Your task to perform on an android device: change your default location settings in chrome Image 0: 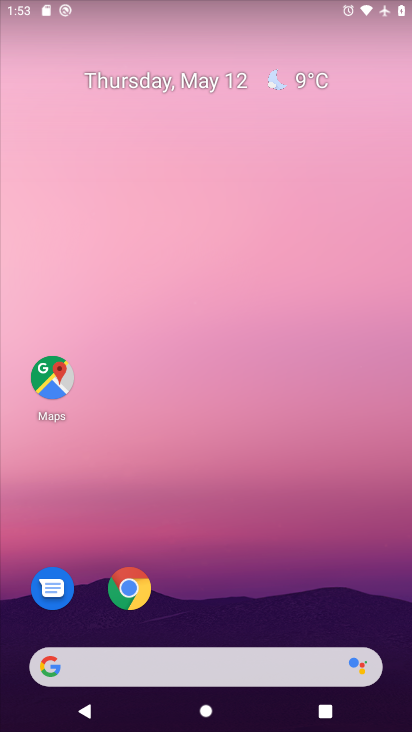
Step 0: drag from (288, 557) to (388, 8)
Your task to perform on an android device: change your default location settings in chrome Image 1: 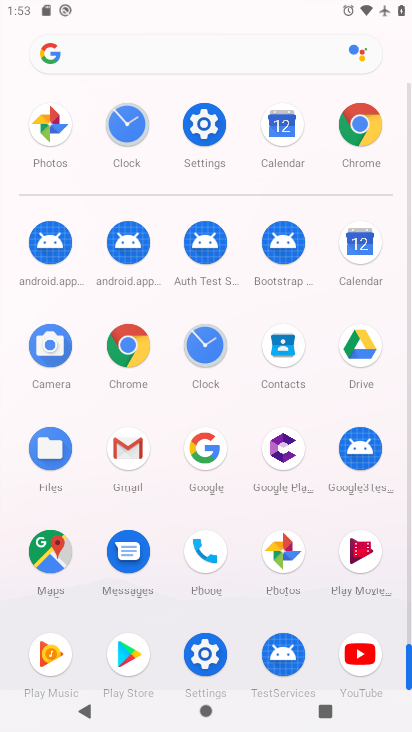
Step 1: click (361, 133)
Your task to perform on an android device: change your default location settings in chrome Image 2: 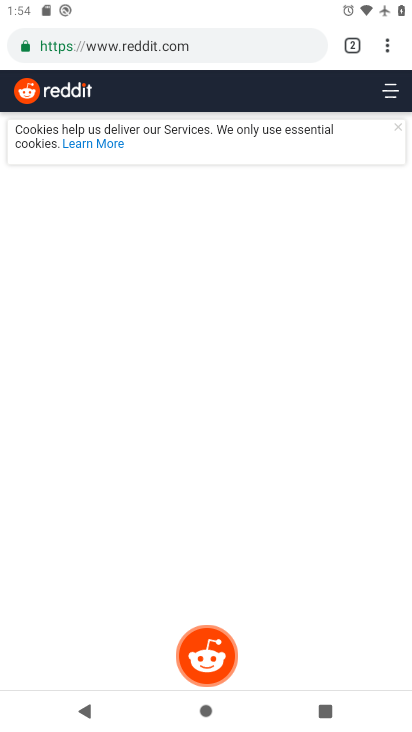
Step 2: drag from (387, 46) to (239, 543)
Your task to perform on an android device: change your default location settings in chrome Image 3: 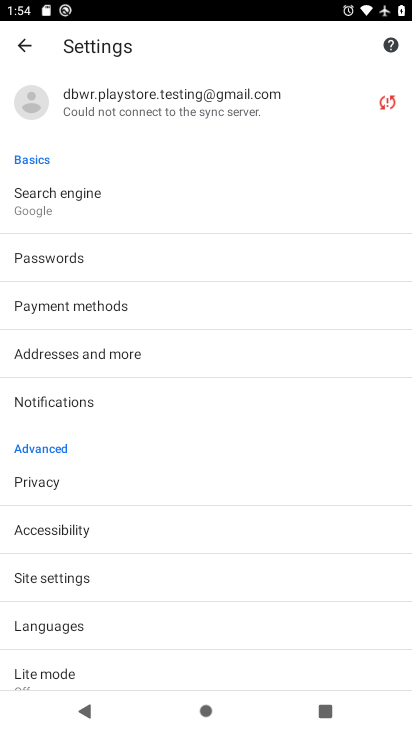
Step 3: drag from (134, 572) to (178, 308)
Your task to perform on an android device: change your default location settings in chrome Image 4: 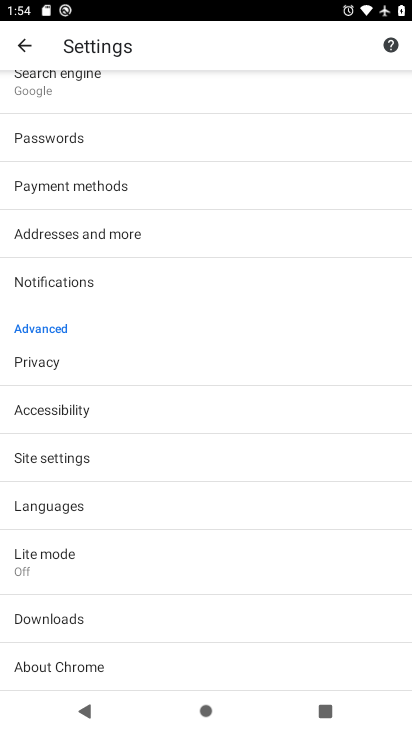
Step 4: click (80, 455)
Your task to perform on an android device: change your default location settings in chrome Image 5: 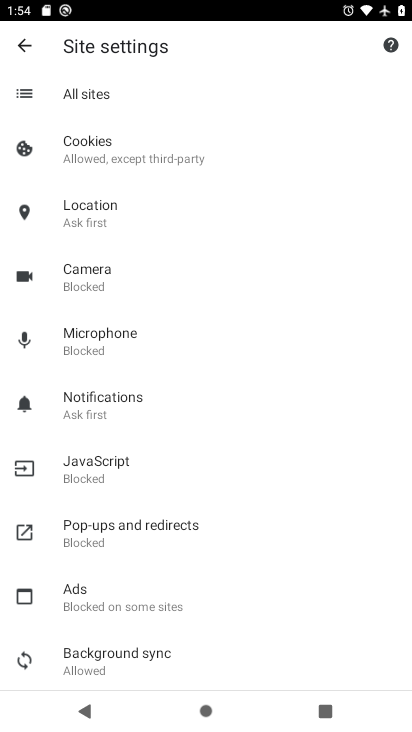
Step 5: drag from (180, 564) to (252, 297)
Your task to perform on an android device: change your default location settings in chrome Image 6: 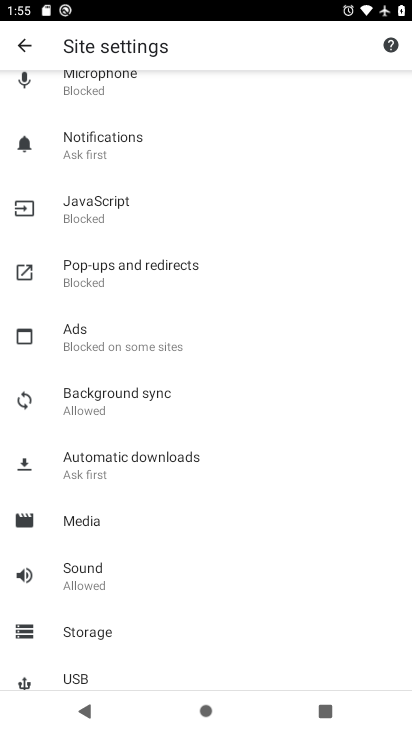
Step 6: drag from (158, 268) to (50, 611)
Your task to perform on an android device: change your default location settings in chrome Image 7: 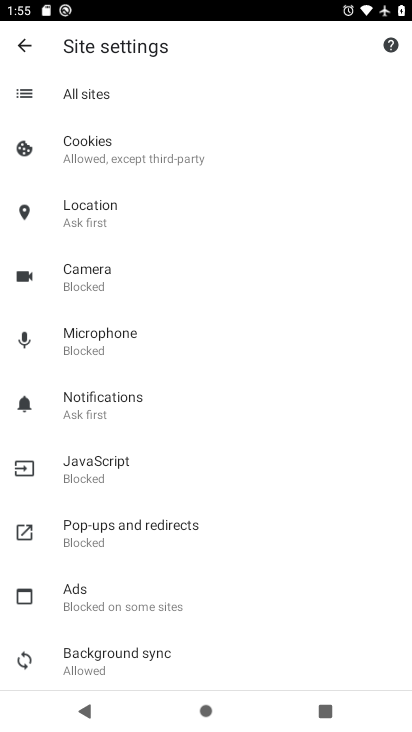
Step 7: click (99, 218)
Your task to perform on an android device: change your default location settings in chrome Image 8: 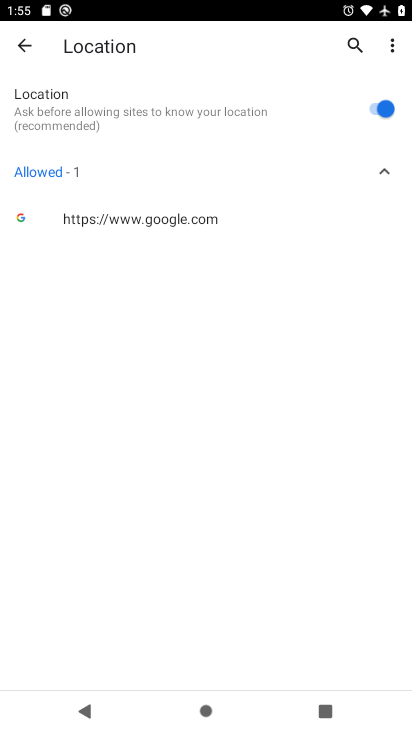
Step 8: click (380, 121)
Your task to perform on an android device: change your default location settings in chrome Image 9: 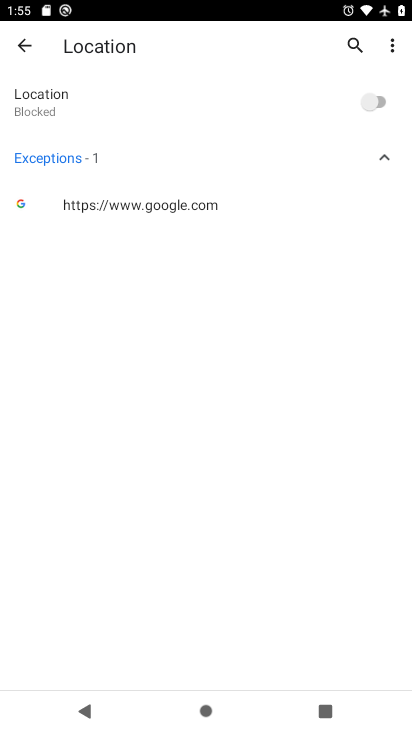
Step 9: task complete